Your task to perform on an android device: Go to Wikipedia Image 0: 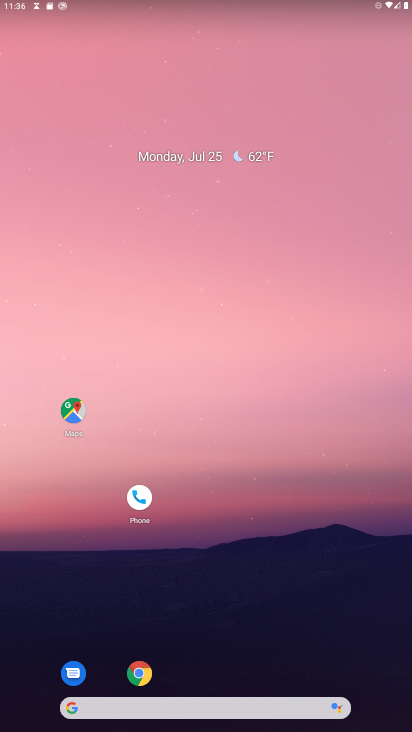
Step 0: press home button
Your task to perform on an android device: Go to Wikipedia Image 1: 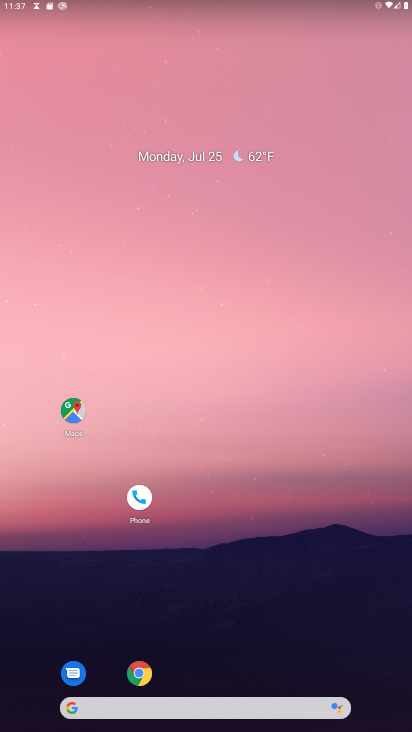
Step 1: click (70, 712)
Your task to perform on an android device: Go to Wikipedia Image 2: 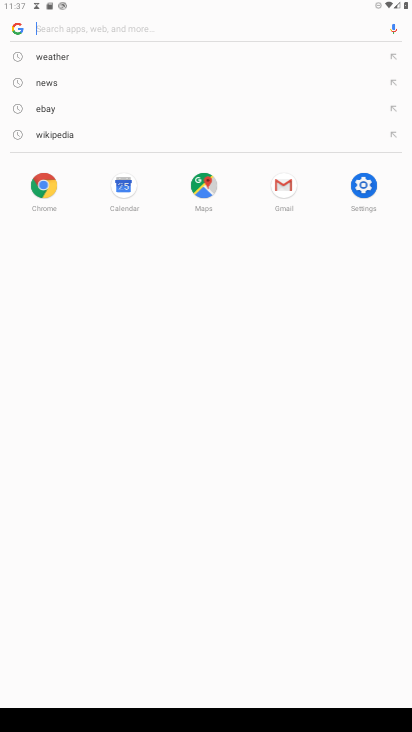
Step 2: click (64, 137)
Your task to perform on an android device: Go to Wikipedia Image 3: 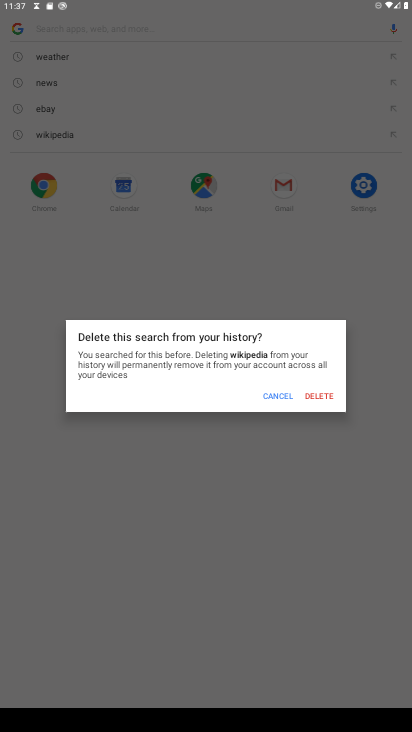
Step 3: click (57, 135)
Your task to perform on an android device: Go to Wikipedia Image 4: 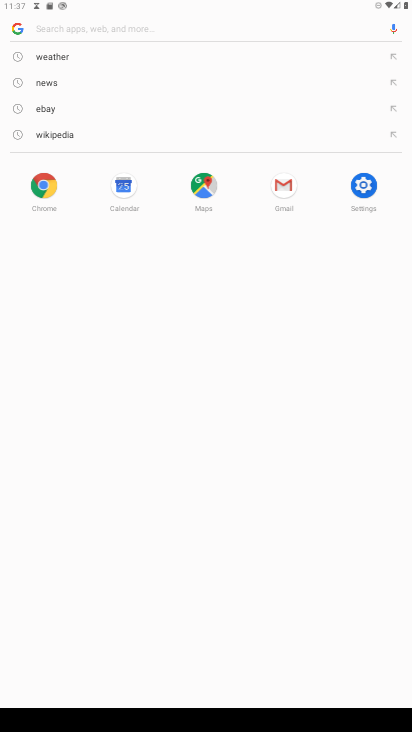
Step 4: click (51, 137)
Your task to perform on an android device: Go to Wikipedia Image 5: 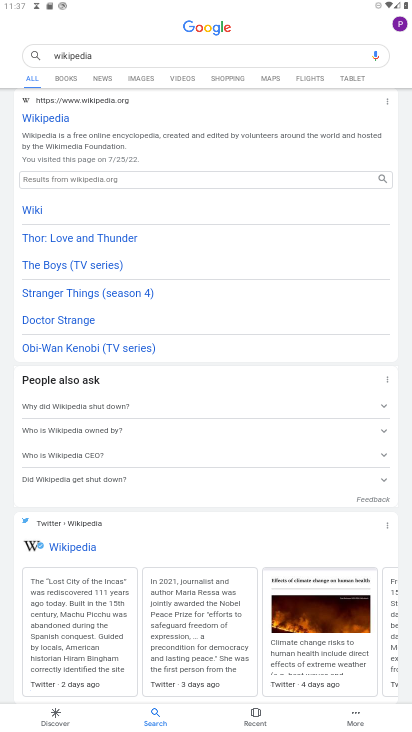
Step 5: click (44, 116)
Your task to perform on an android device: Go to Wikipedia Image 6: 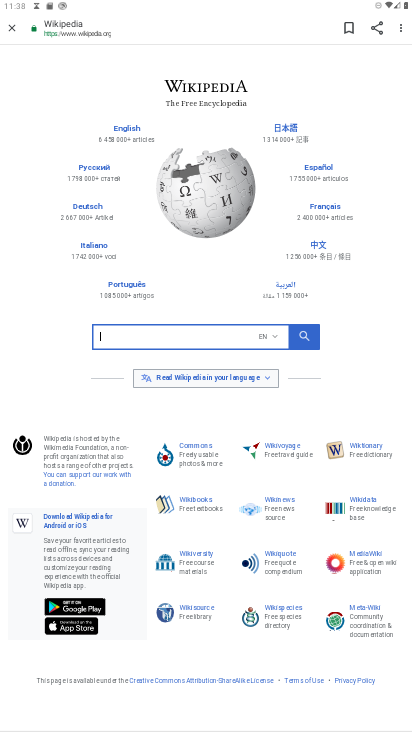
Step 6: task complete